Your task to perform on an android device: Go to notification settings Image 0: 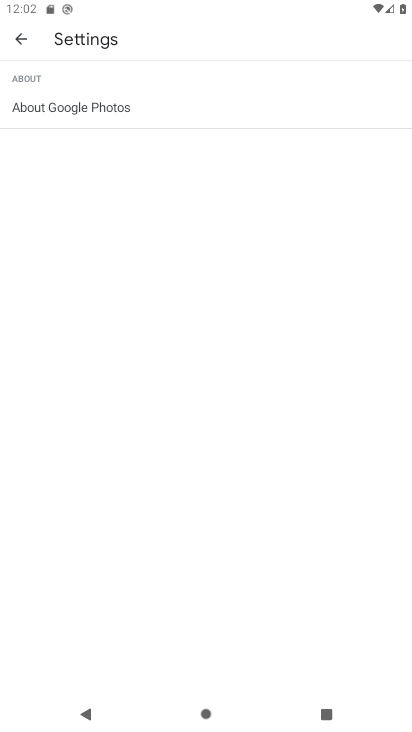
Step 0: press home button
Your task to perform on an android device: Go to notification settings Image 1: 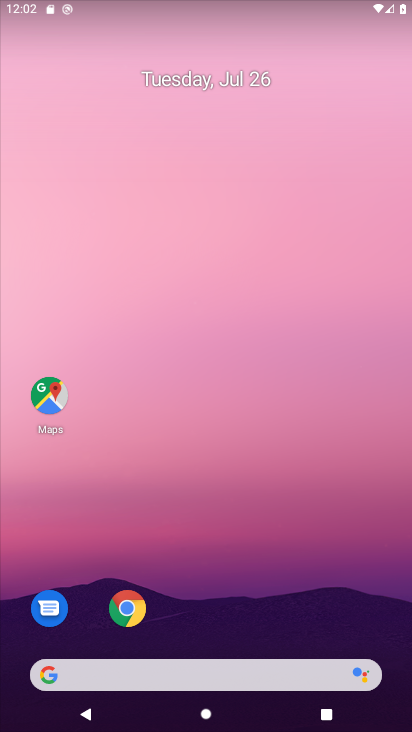
Step 1: drag from (220, 646) to (226, 4)
Your task to perform on an android device: Go to notification settings Image 2: 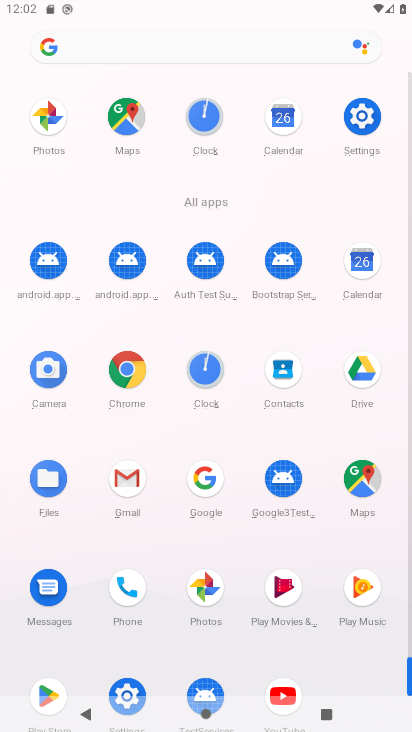
Step 2: drag from (154, 651) to (179, 454)
Your task to perform on an android device: Go to notification settings Image 3: 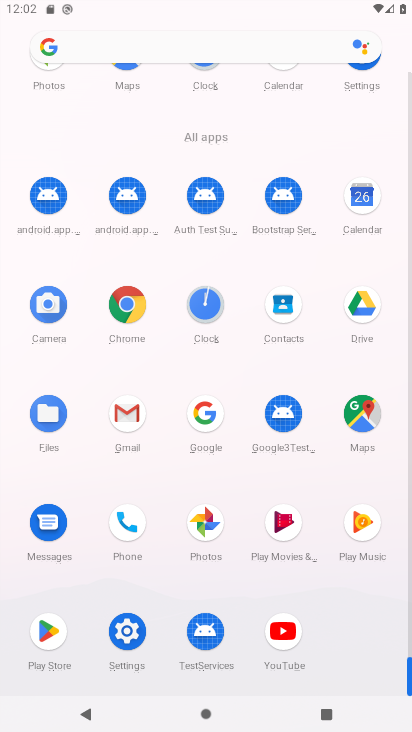
Step 3: click (128, 634)
Your task to perform on an android device: Go to notification settings Image 4: 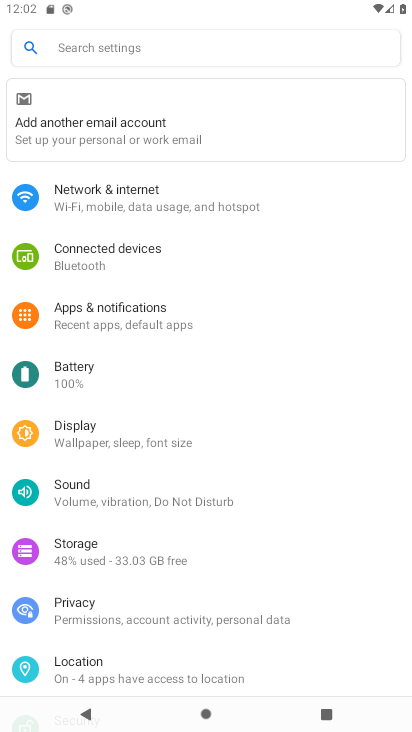
Step 4: click (162, 319)
Your task to perform on an android device: Go to notification settings Image 5: 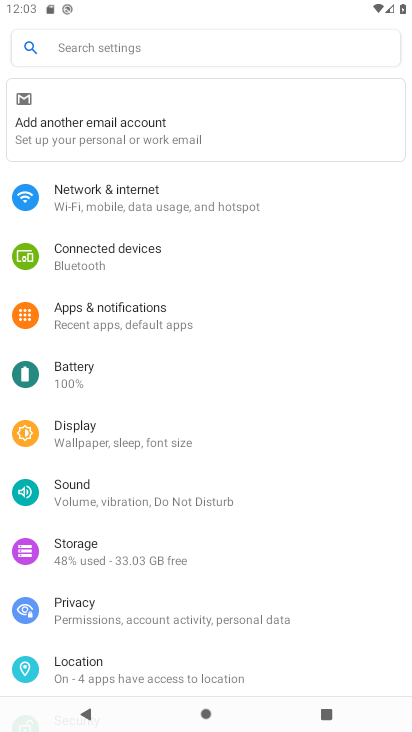
Step 5: click (133, 317)
Your task to perform on an android device: Go to notification settings Image 6: 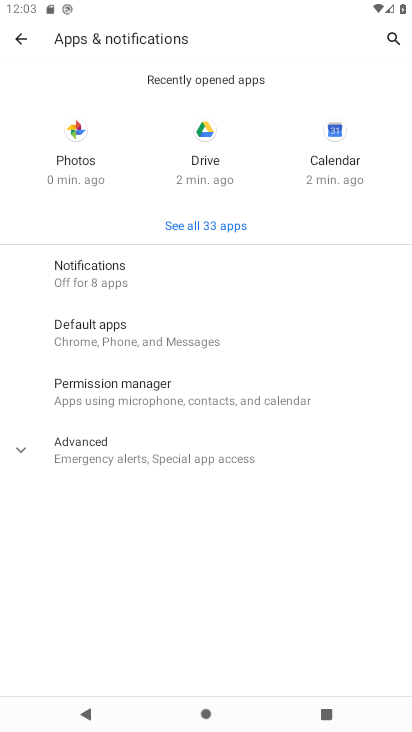
Step 6: click (123, 281)
Your task to perform on an android device: Go to notification settings Image 7: 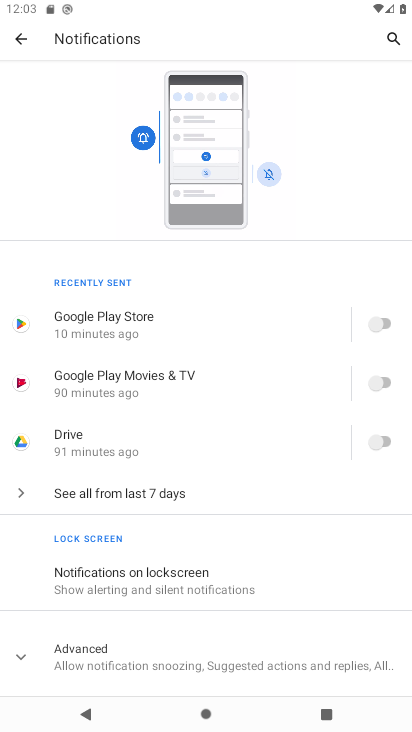
Step 7: task complete